Your task to perform on an android device: see creations saved in the google photos Image 0: 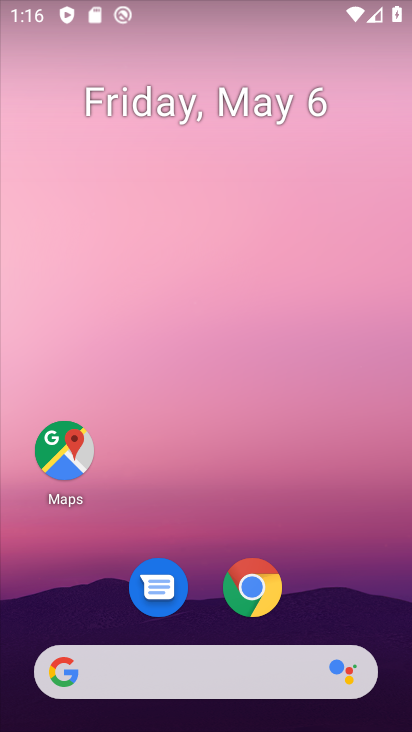
Step 0: drag from (325, 454) to (331, 131)
Your task to perform on an android device: see creations saved in the google photos Image 1: 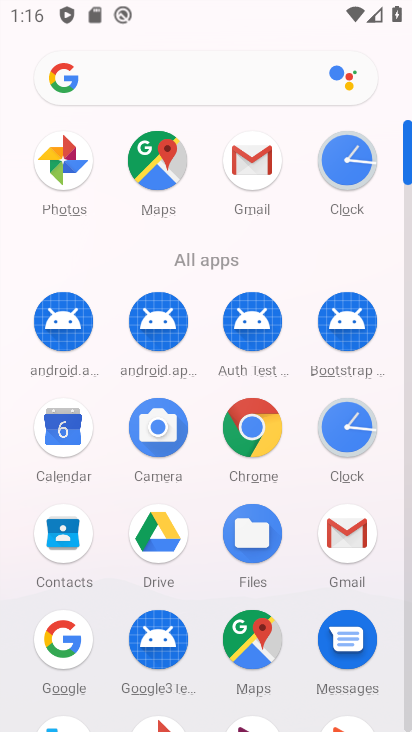
Step 1: click (67, 179)
Your task to perform on an android device: see creations saved in the google photos Image 2: 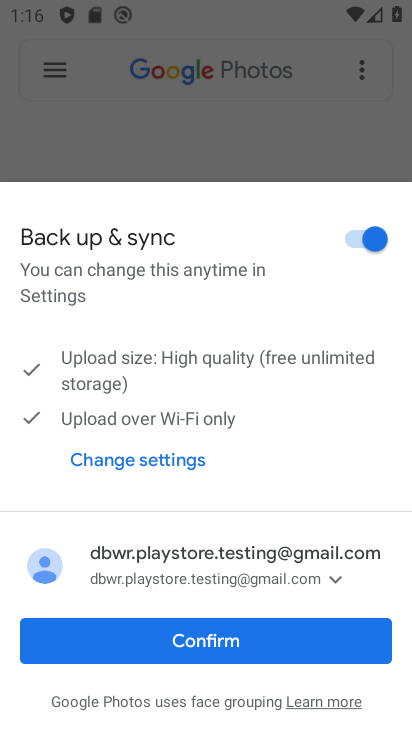
Step 2: click (235, 640)
Your task to perform on an android device: see creations saved in the google photos Image 3: 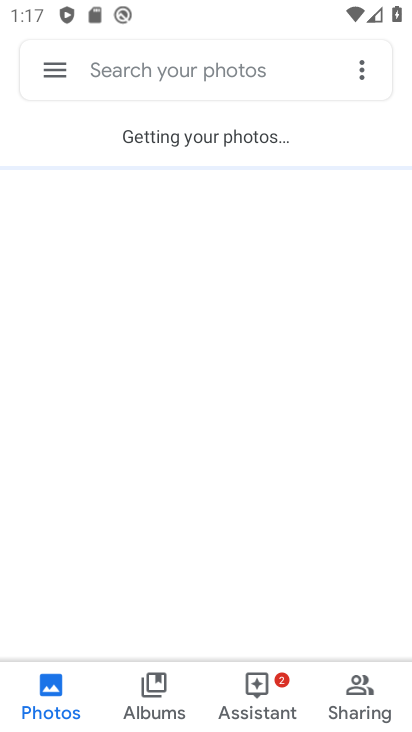
Step 3: click (152, 62)
Your task to perform on an android device: see creations saved in the google photos Image 4: 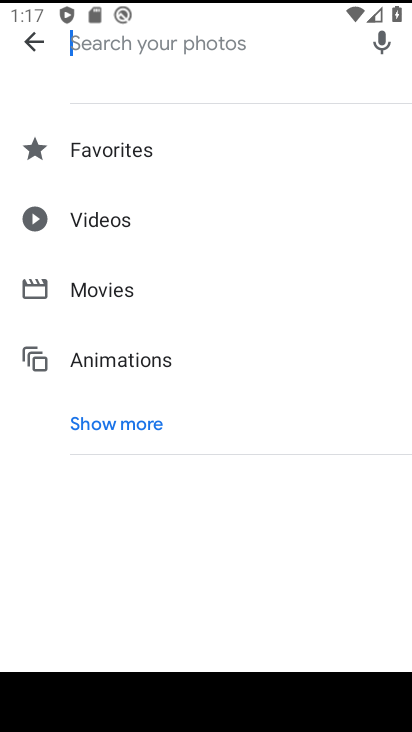
Step 4: click (123, 423)
Your task to perform on an android device: see creations saved in the google photos Image 5: 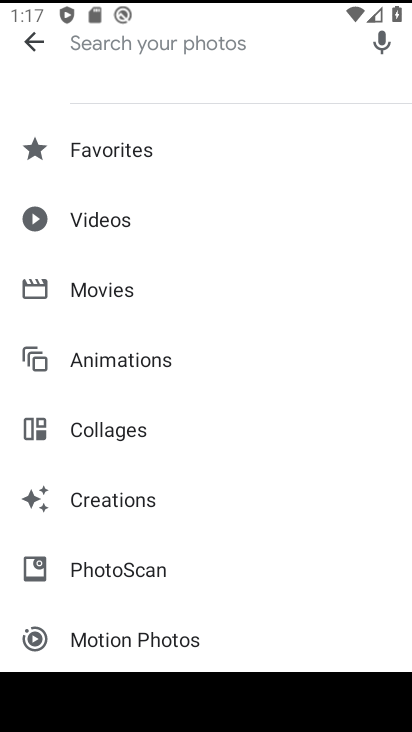
Step 5: click (139, 498)
Your task to perform on an android device: see creations saved in the google photos Image 6: 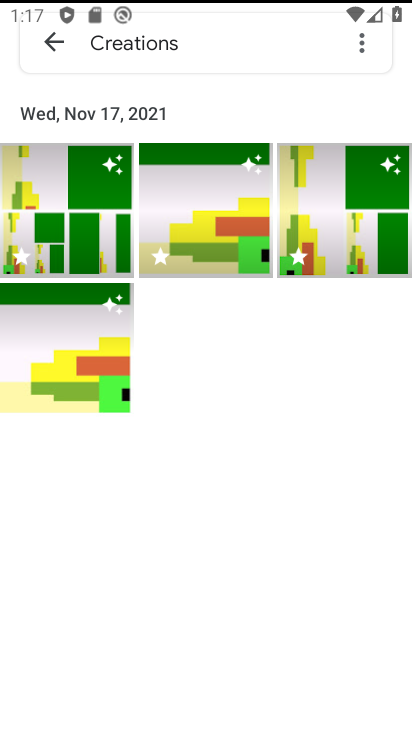
Step 6: task complete